Your task to perform on an android device: turn on improve location accuracy Image 0: 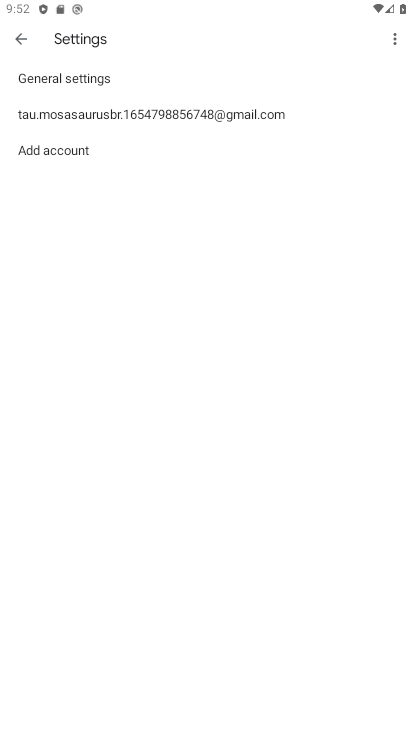
Step 0: press home button
Your task to perform on an android device: turn on improve location accuracy Image 1: 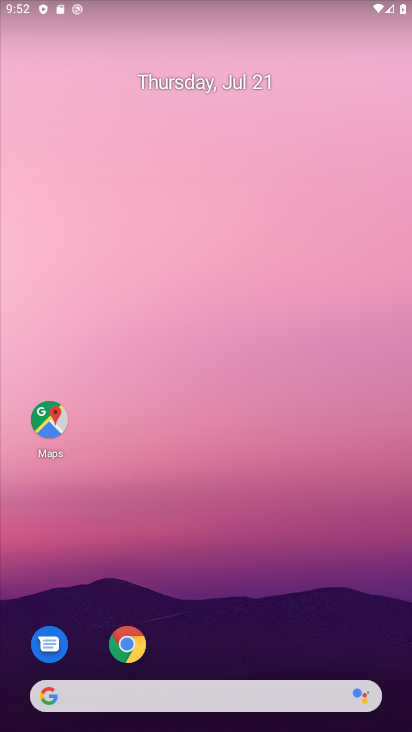
Step 1: drag from (223, 662) to (177, 49)
Your task to perform on an android device: turn on improve location accuracy Image 2: 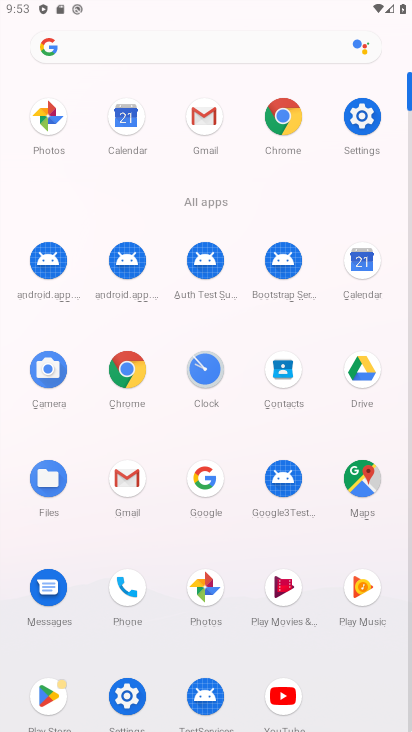
Step 2: click (365, 125)
Your task to perform on an android device: turn on improve location accuracy Image 3: 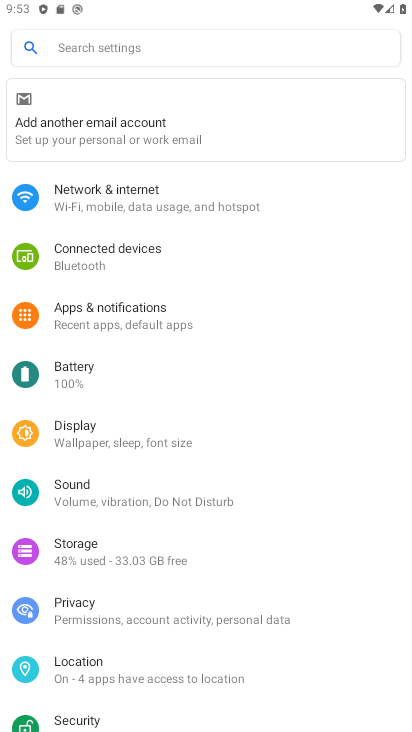
Step 3: click (114, 665)
Your task to perform on an android device: turn on improve location accuracy Image 4: 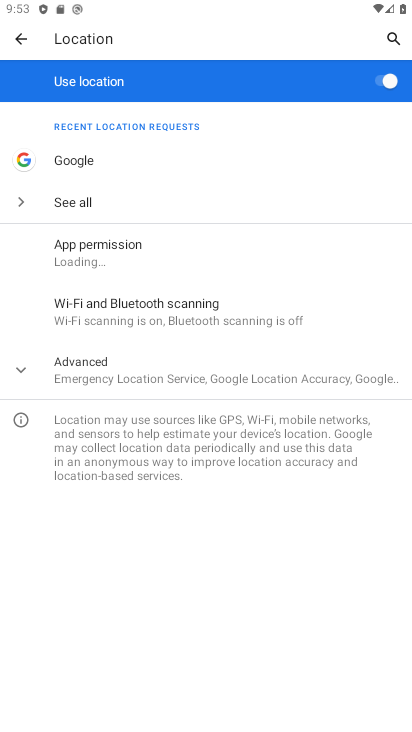
Step 4: click (138, 381)
Your task to perform on an android device: turn on improve location accuracy Image 5: 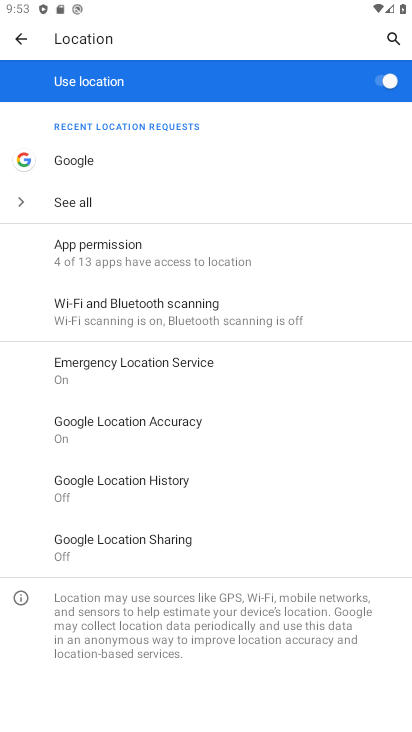
Step 5: click (119, 432)
Your task to perform on an android device: turn on improve location accuracy Image 6: 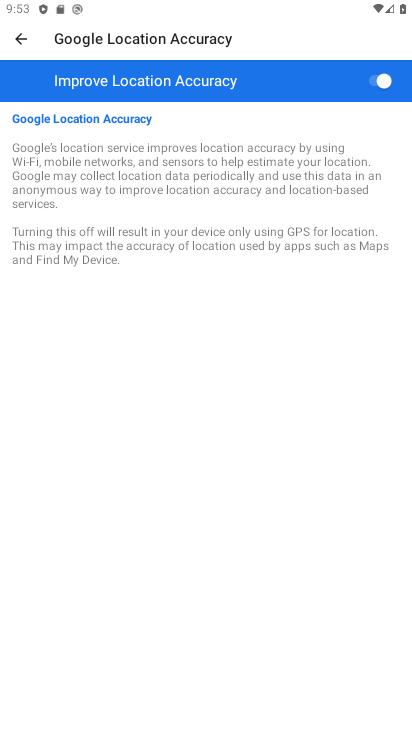
Step 6: task complete